Your task to perform on an android device: Check the weather Image 0: 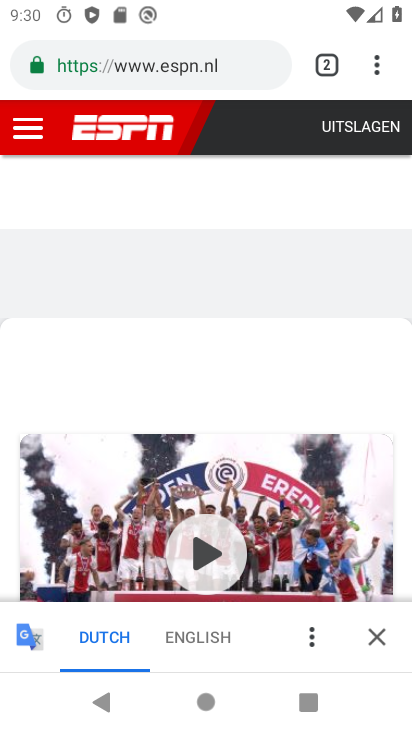
Step 0: press home button
Your task to perform on an android device: Check the weather Image 1: 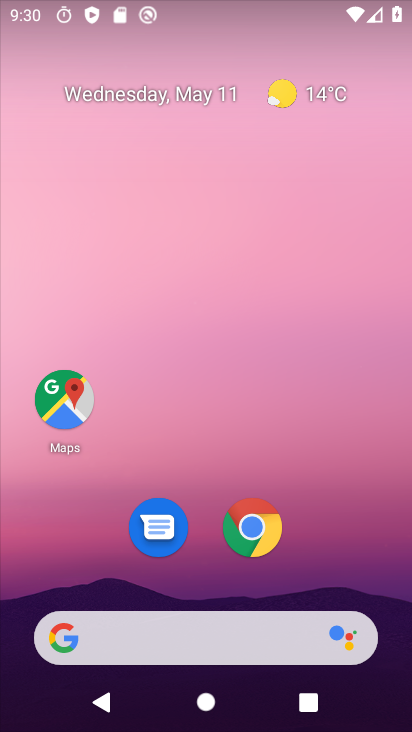
Step 1: drag from (239, 634) to (241, 59)
Your task to perform on an android device: Check the weather Image 2: 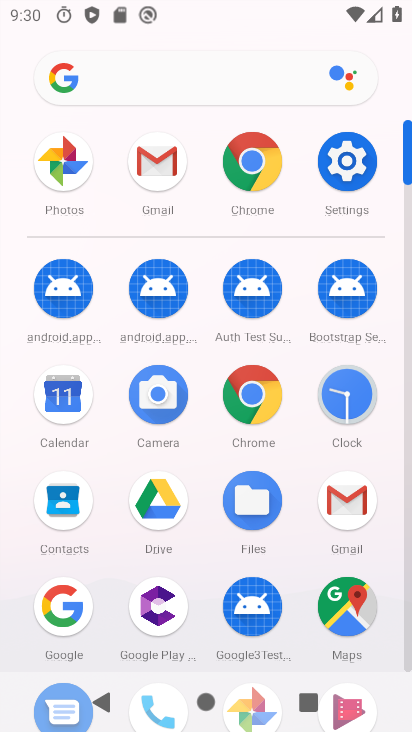
Step 2: click (53, 606)
Your task to perform on an android device: Check the weather Image 3: 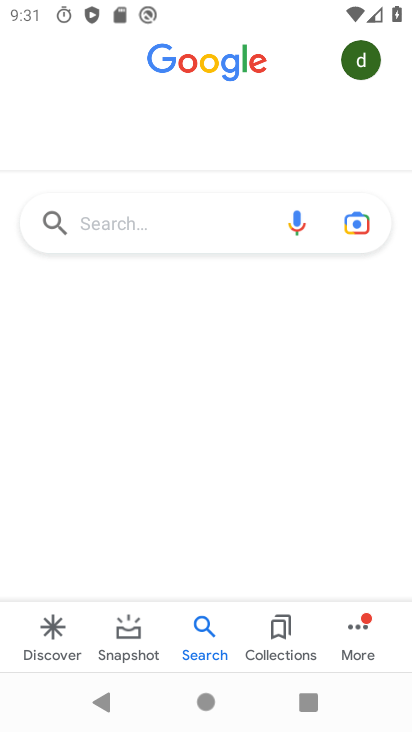
Step 3: click (199, 205)
Your task to perform on an android device: Check the weather Image 4: 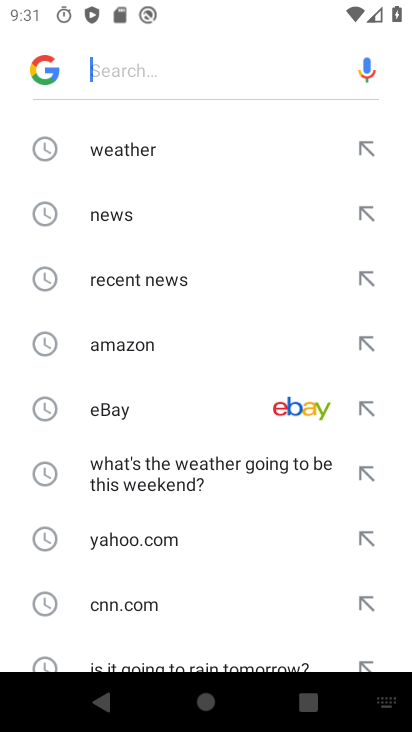
Step 4: click (196, 156)
Your task to perform on an android device: Check the weather Image 5: 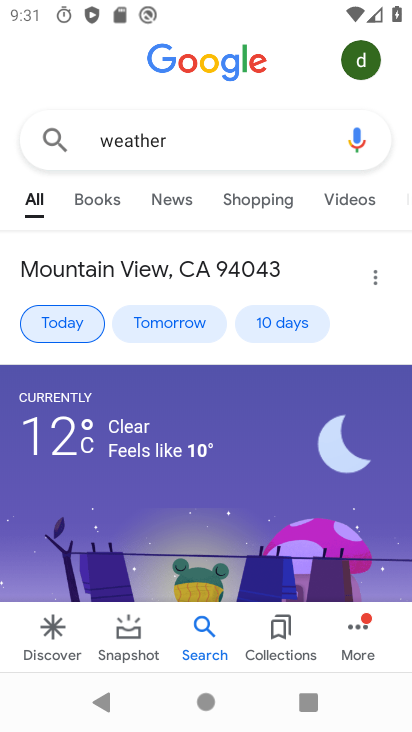
Step 5: task complete